Your task to perform on an android device: Add "logitech g502" to the cart on walmart Image 0: 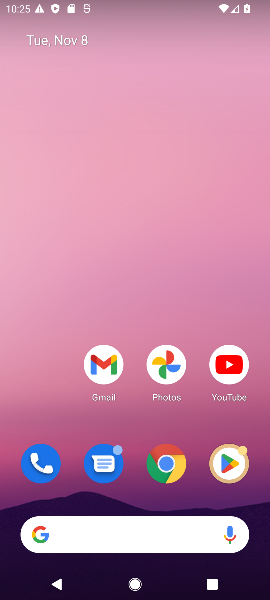
Step 0: click (174, 457)
Your task to perform on an android device: Add "logitech g502" to the cart on walmart Image 1: 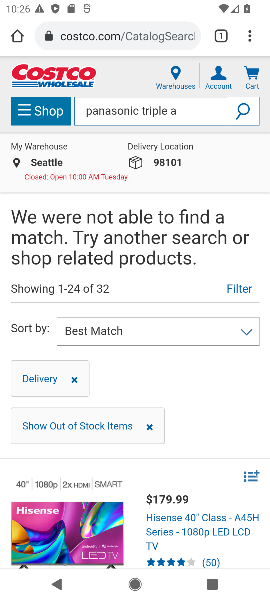
Step 1: click (170, 33)
Your task to perform on an android device: Add "logitech g502" to the cart on walmart Image 2: 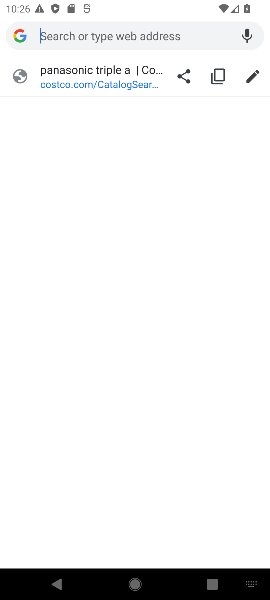
Step 2: type "walmart"
Your task to perform on an android device: Add "logitech g502" to the cart on walmart Image 3: 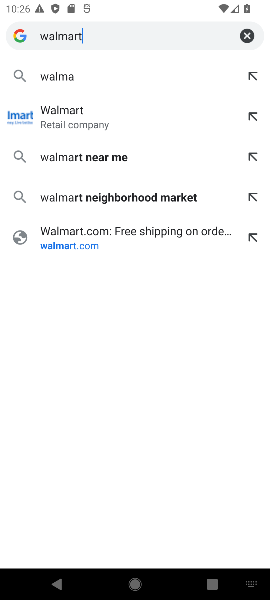
Step 3: press enter
Your task to perform on an android device: Add "logitech g502" to the cart on walmart Image 4: 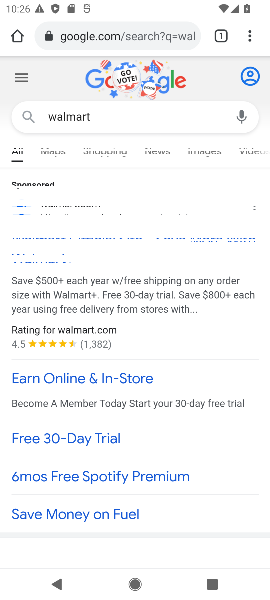
Step 4: click (121, 211)
Your task to perform on an android device: Add "logitech g502" to the cart on walmart Image 5: 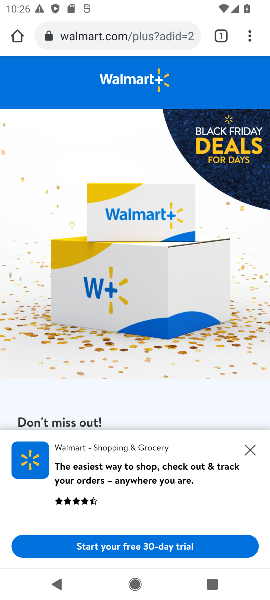
Step 5: press back button
Your task to perform on an android device: Add "logitech g502" to the cart on walmart Image 6: 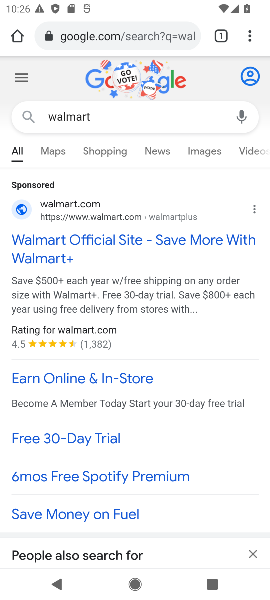
Step 6: drag from (166, 426) to (205, 248)
Your task to perform on an android device: Add "logitech g502" to the cart on walmart Image 7: 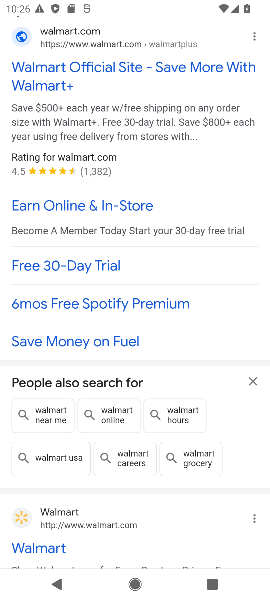
Step 7: click (116, 524)
Your task to perform on an android device: Add "logitech g502" to the cart on walmart Image 8: 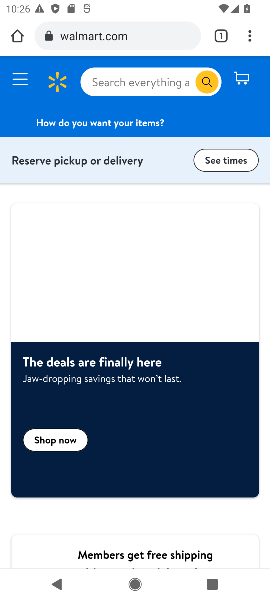
Step 8: click (156, 80)
Your task to perform on an android device: Add "logitech g502" to the cart on walmart Image 9: 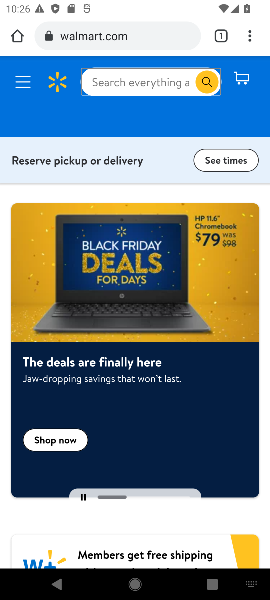
Step 9: type "logitech g502"
Your task to perform on an android device: Add "logitech g502" to the cart on walmart Image 10: 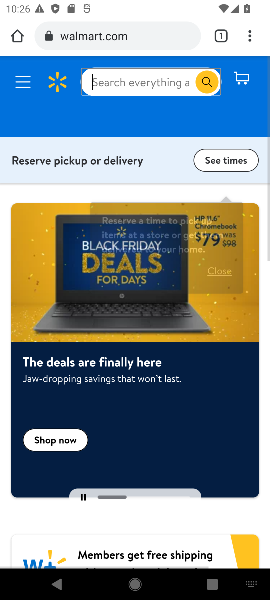
Step 10: press enter
Your task to perform on an android device: Add "logitech g502" to the cart on walmart Image 11: 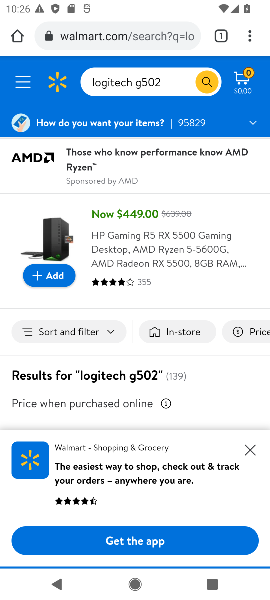
Step 11: drag from (226, 379) to (244, 269)
Your task to perform on an android device: Add "logitech g502" to the cart on walmart Image 12: 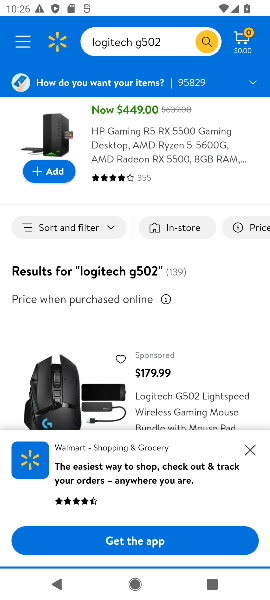
Step 12: click (64, 383)
Your task to perform on an android device: Add "logitech g502" to the cart on walmart Image 13: 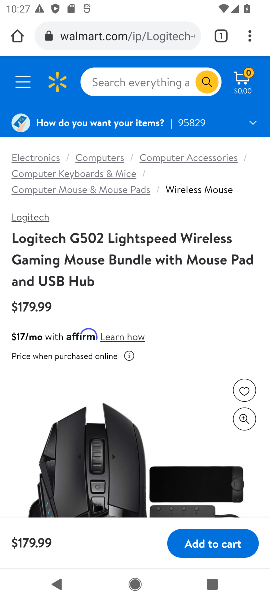
Step 13: click (206, 544)
Your task to perform on an android device: Add "logitech g502" to the cart on walmart Image 14: 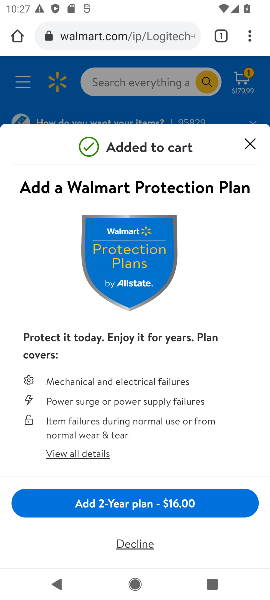
Step 14: task complete